Your task to perform on an android device: Open settings Image 0: 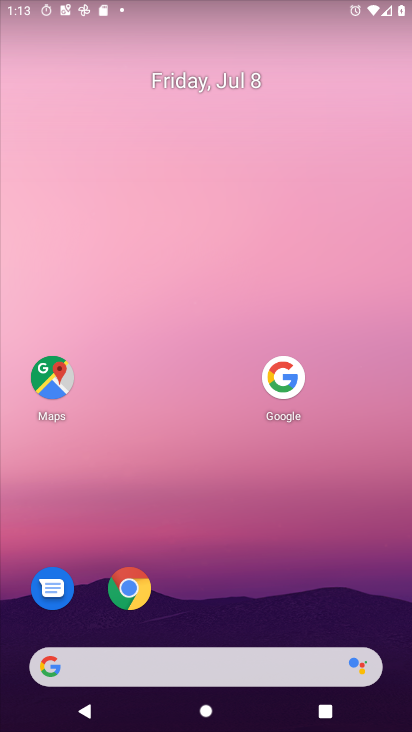
Step 0: drag from (184, 673) to (335, 118)
Your task to perform on an android device: Open settings Image 1: 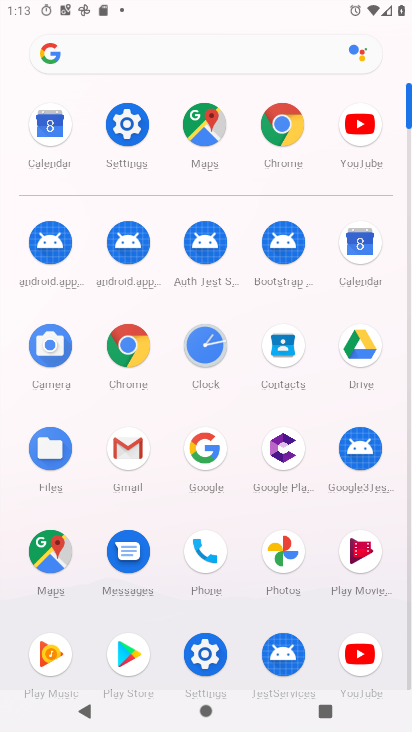
Step 1: click (133, 127)
Your task to perform on an android device: Open settings Image 2: 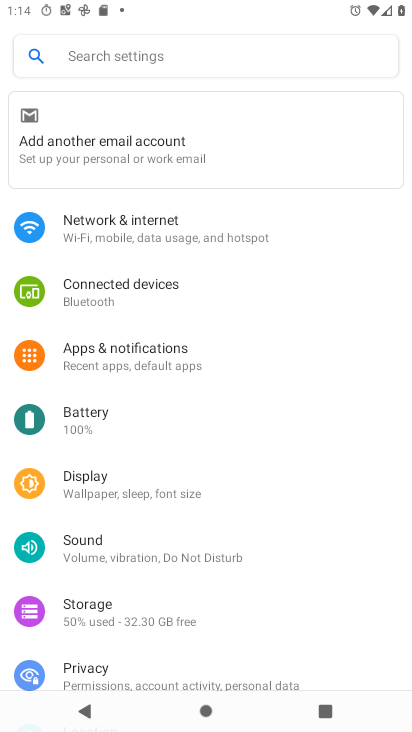
Step 2: task complete